Your task to perform on an android device: Clear the shopping cart on ebay.com. Add acer predator to the cart on ebay.com, then select checkout. Image 0: 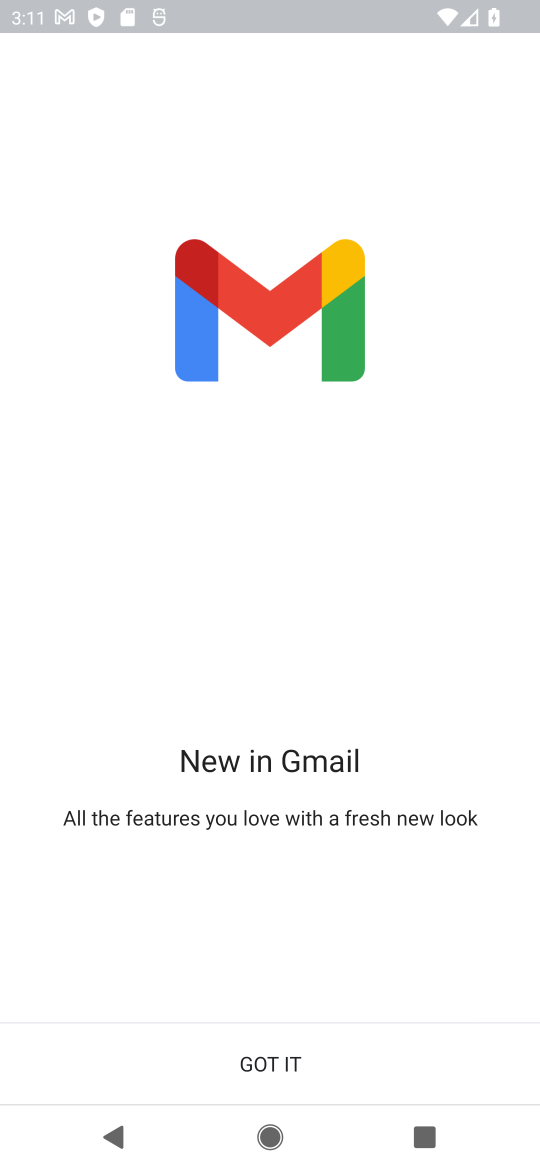
Step 0: press home button
Your task to perform on an android device: Clear the shopping cart on ebay.com. Add acer predator to the cart on ebay.com, then select checkout. Image 1: 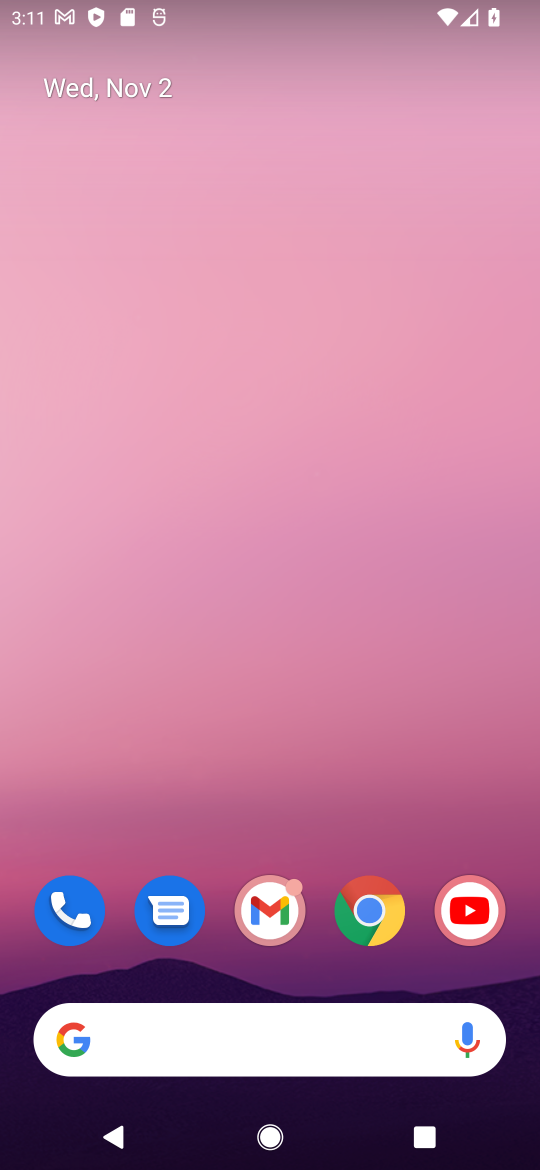
Step 1: click (379, 900)
Your task to perform on an android device: Clear the shopping cart on ebay.com. Add acer predator to the cart on ebay.com, then select checkout. Image 2: 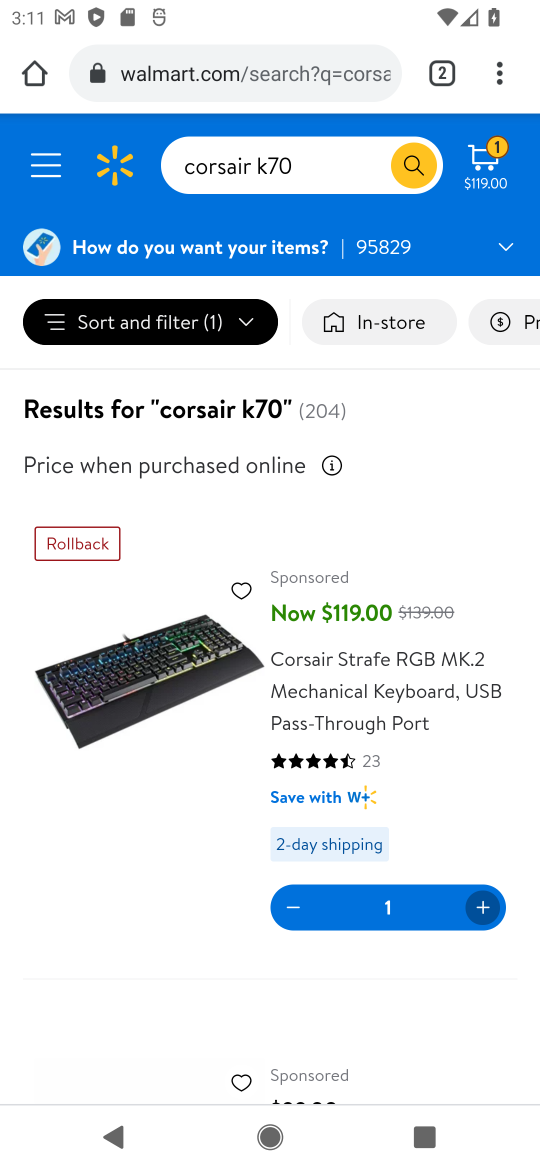
Step 2: click (447, 74)
Your task to perform on an android device: Clear the shopping cart on ebay.com. Add acer predator to the cart on ebay.com, then select checkout. Image 3: 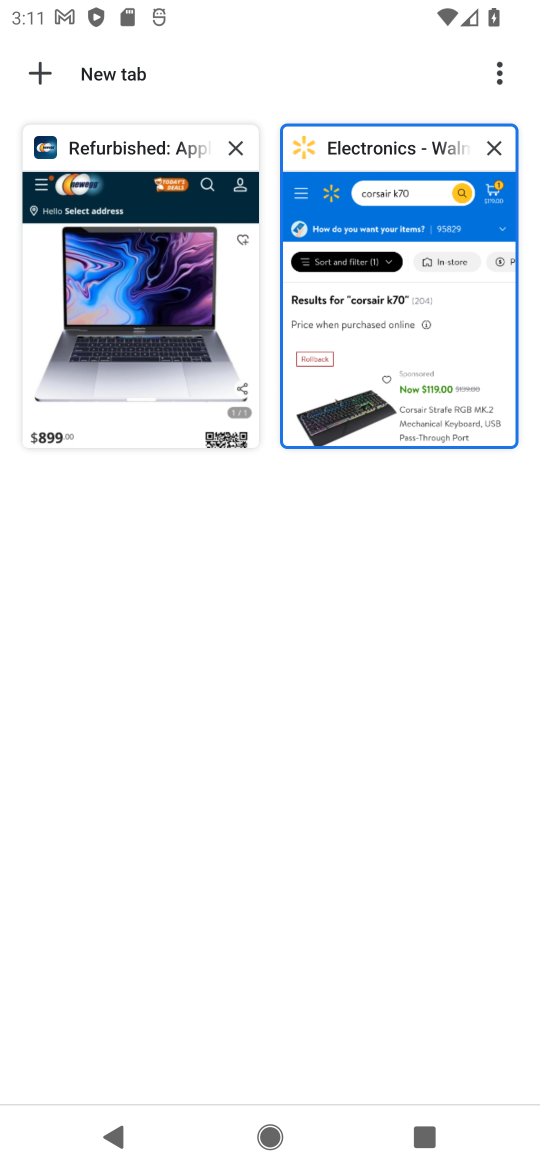
Step 3: click (45, 70)
Your task to perform on an android device: Clear the shopping cart on ebay.com. Add acer predator to the cart on ebay.com, then select checkout. Image 4: 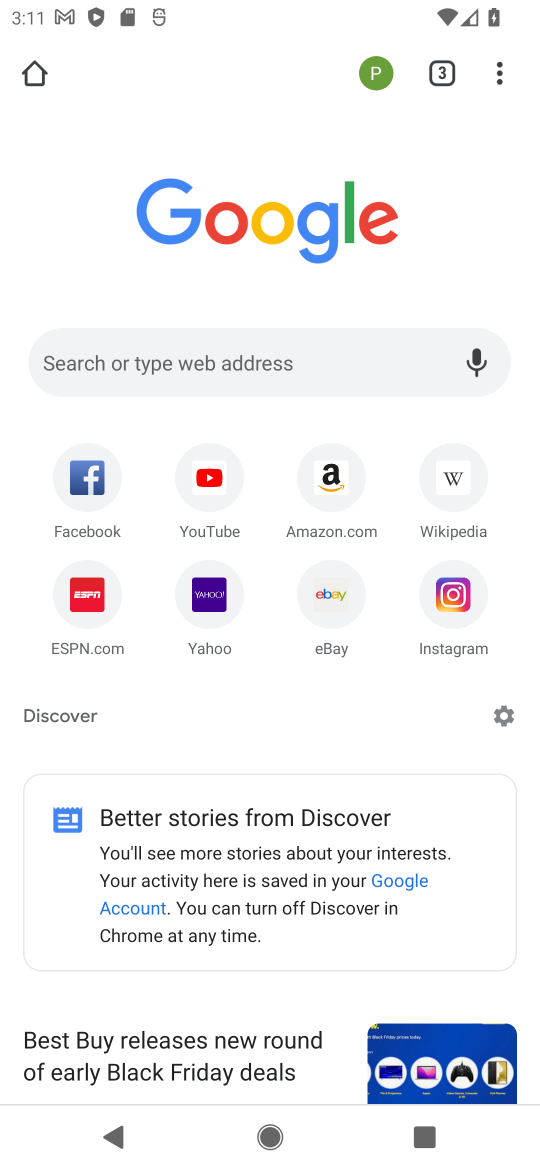
Step 4: click (309, 366)
Your task to perform on an android device: Clear the shopping cart on ebay.com. Add acer predator to the cart on ebay.com, then select checkout. Image 5: 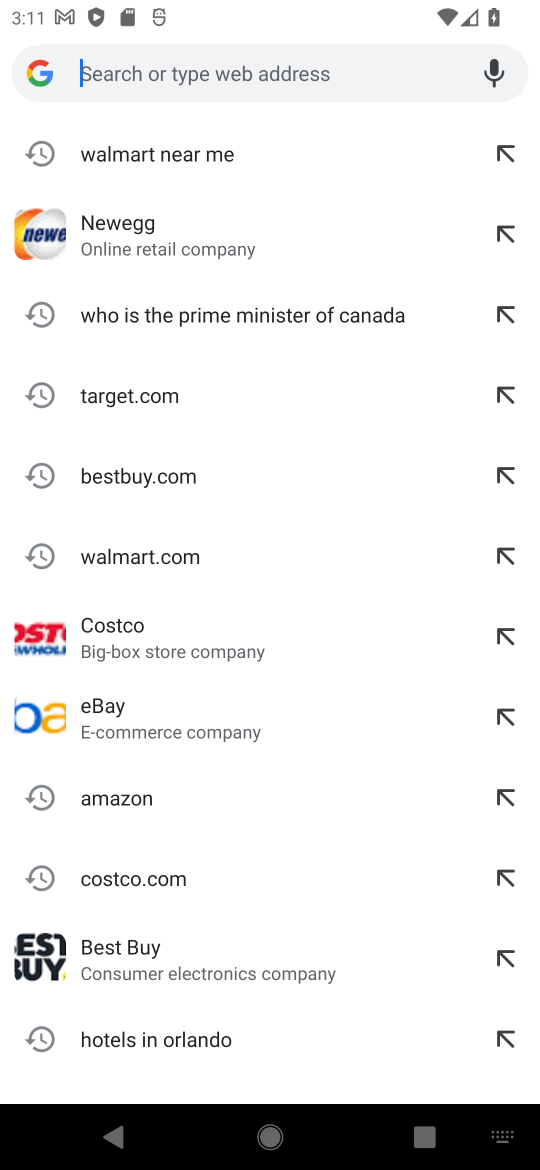
Step 5: click (68, 716)
Your task to perform on an android device: Clear the shopping cart on ebay.com. Add acer predator to the cart on ebay.com, then select checkout. Image 6: 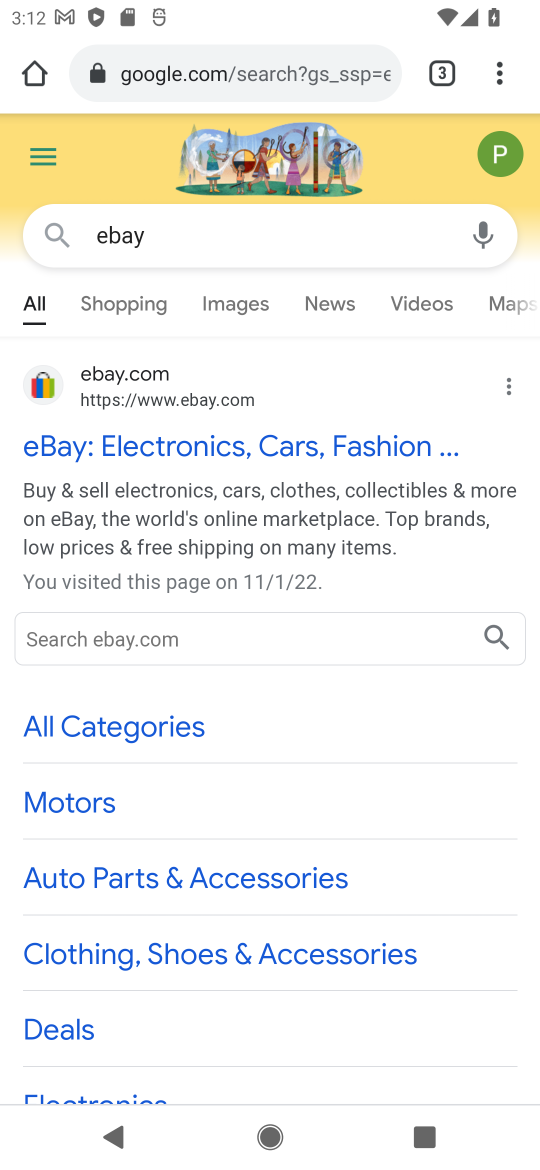
Step 6: click (132, 635)
Your task to perform on an android device: Clear the shopping cart on ebay.com. Add acer predator to the cart on ebay.com, then select checkout. Image 7: 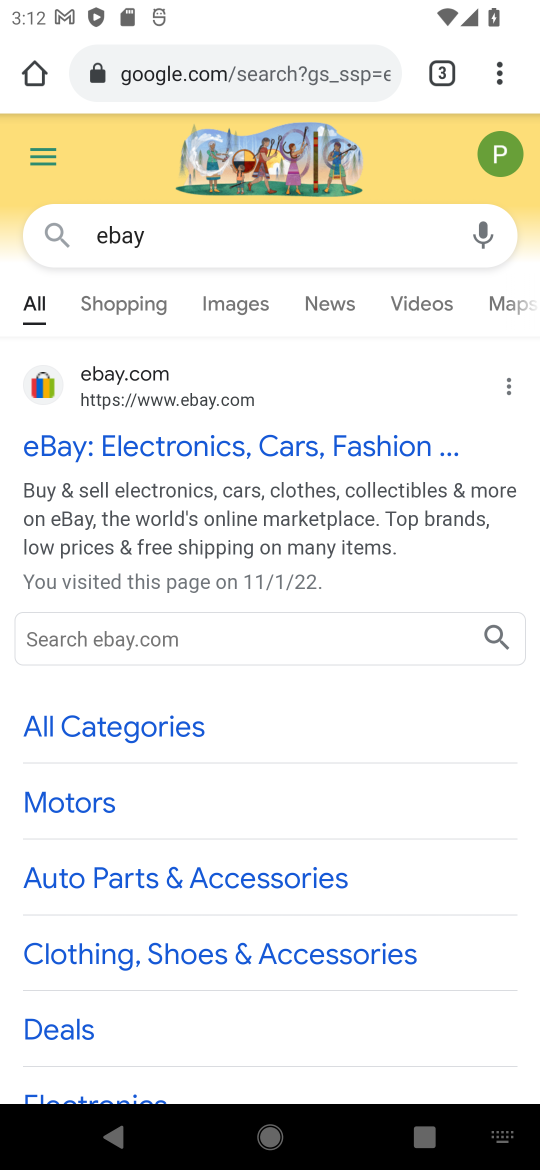
Step 7: type "acer predator"
Your task to perform on an android device: Clear the shopping cart on ebay.com. Add acer predator to the cart on ebay.com, then select checkout. Image 8: 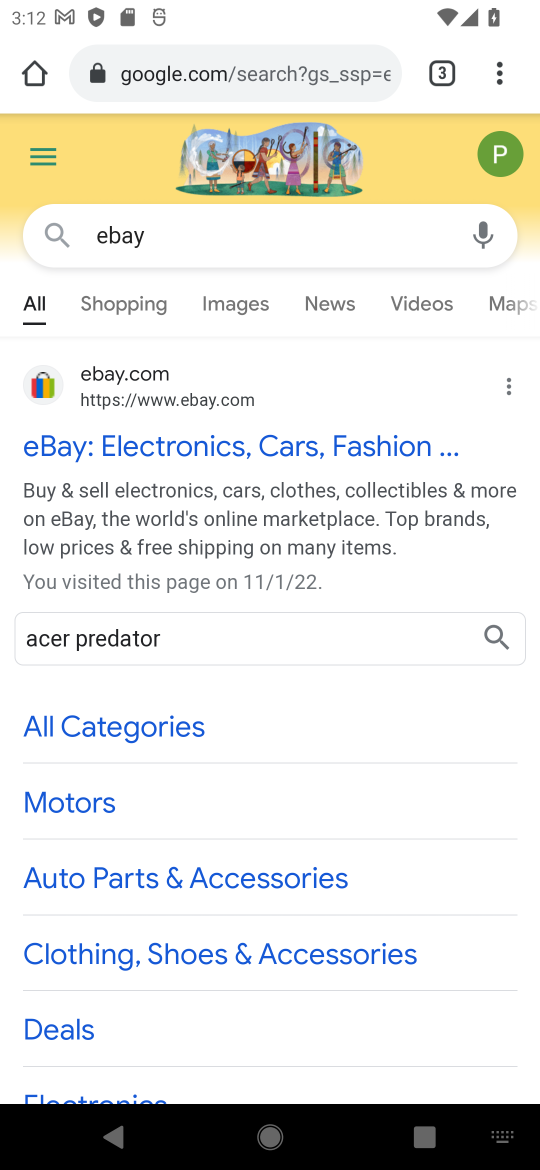
Step 8: click (498, 630)
Your task to perform on an android device: Clear the shopping cart on ebay.com. Add acer predator to the cart on ebay.com, then select checkout. Image 9: 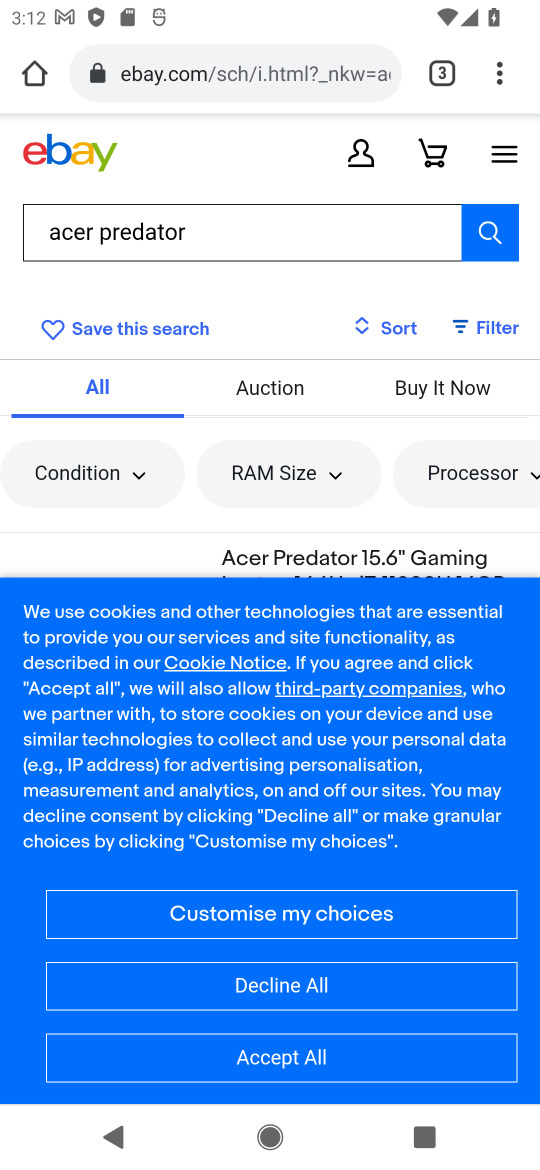
Step 9: click (238, 978)
Your task to perform on an android device: Clear the shopping cart on ebay.com. Add acer predator to the cart on ebay.com, then select checkout. Image 10: 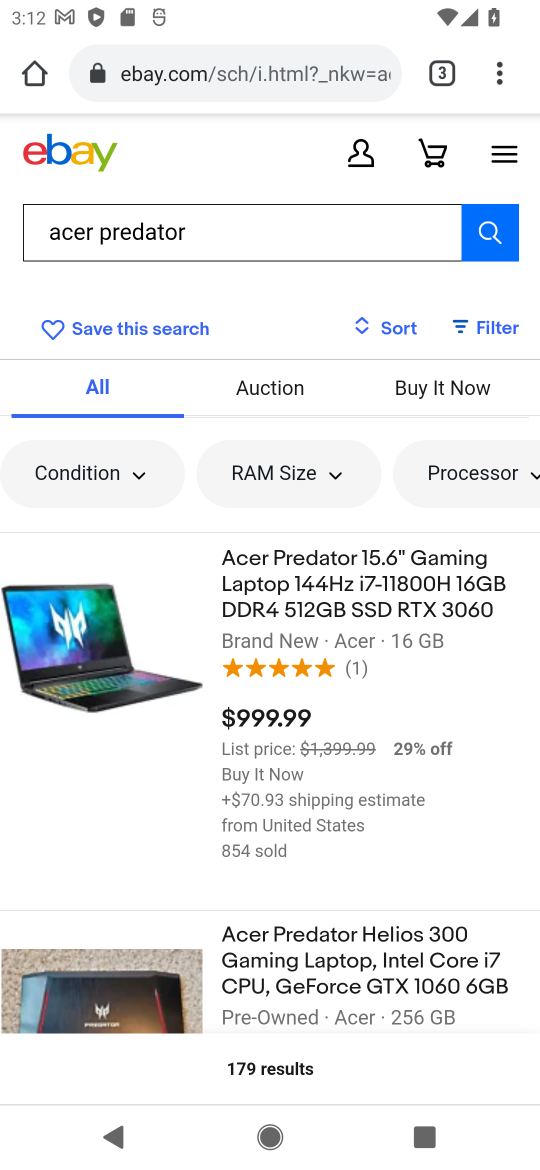
Step 10: click (357, 592)
Your task to perform on an android device: Clear the shopping cart on ebay.com. Add acer predator to the cart on ebay.com, then select checkout. Image 11: 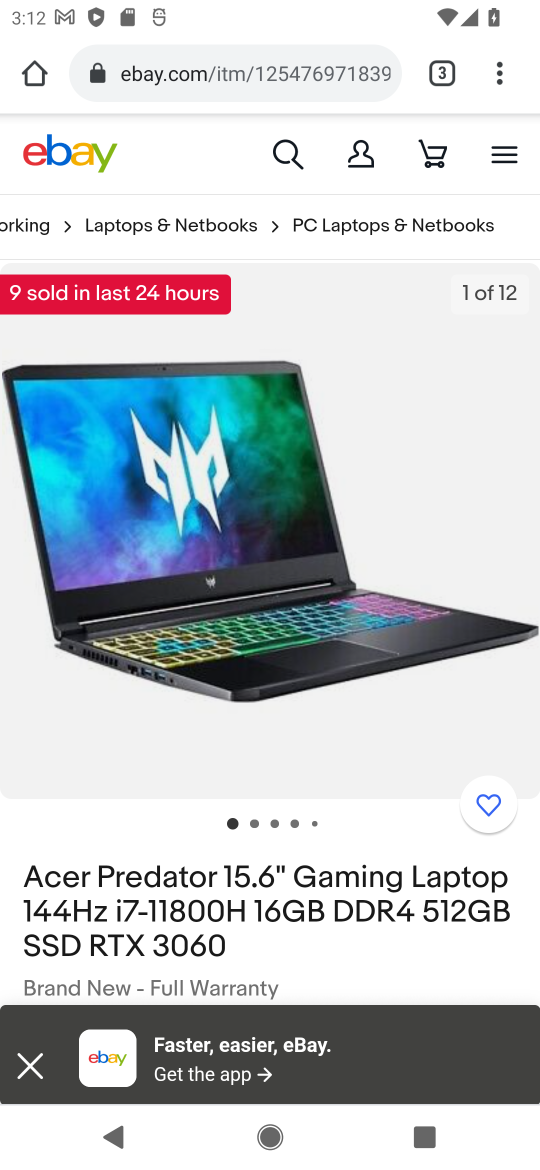
Step 11: click (45, 1083)
Your task to perform on an android device: Clear the shopping cart on ebay.com. Add acer predator to the cart on ebay.com, then select checkout. Image 12: 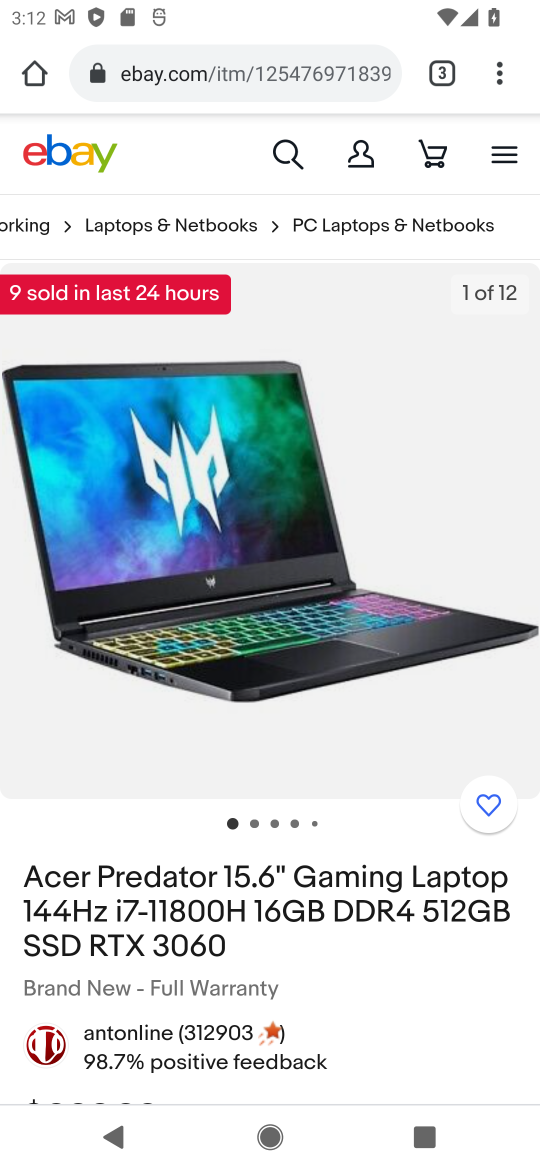
Step 12: drag from (278, 1020) to (325, 172)
Your task to perform on an android device: Clear the shopping cart on ebay.com. Add acer predator to the cart on ebay.com, then select checkout. Image 13: 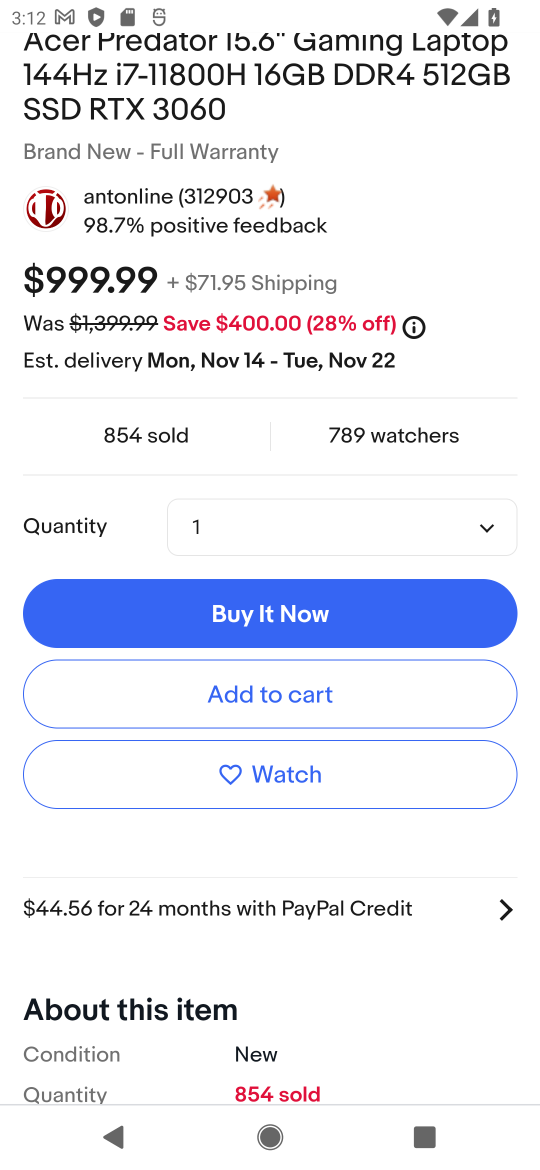
Step 13: click (327, 694)
Your task to perform on an android device: Clear the shopping cart on ebay.com. Add acer predator to the cart on ebay.com, then select checkout. Image 14: 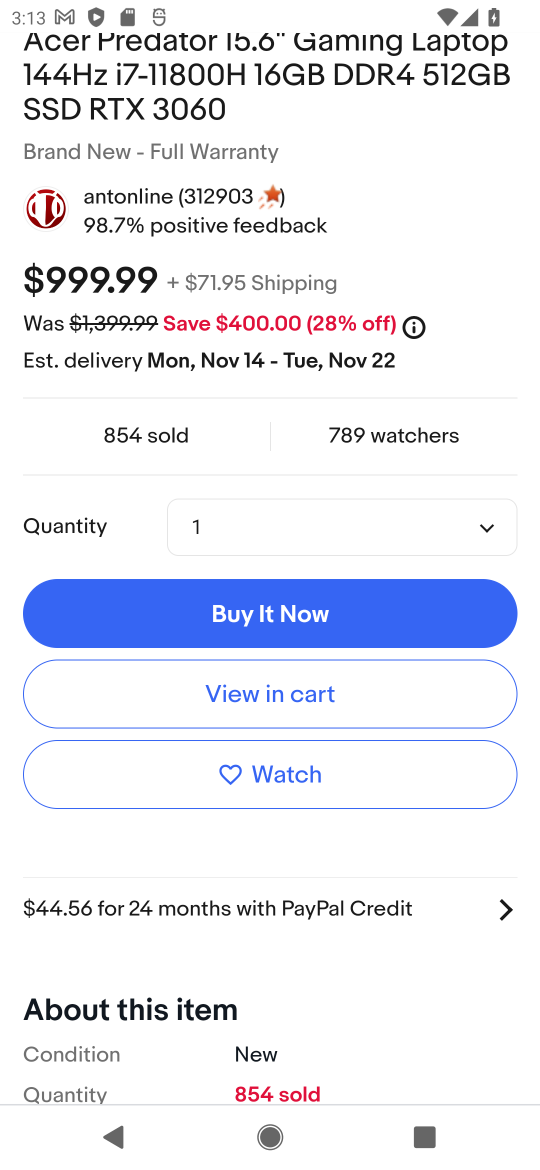
Step 14: click (282, 695)
Your task to perform on an android device: Clear the shopping cart on ebay.com. Add acer predator to the cart on ebay.com, then select checkout. Image 15: 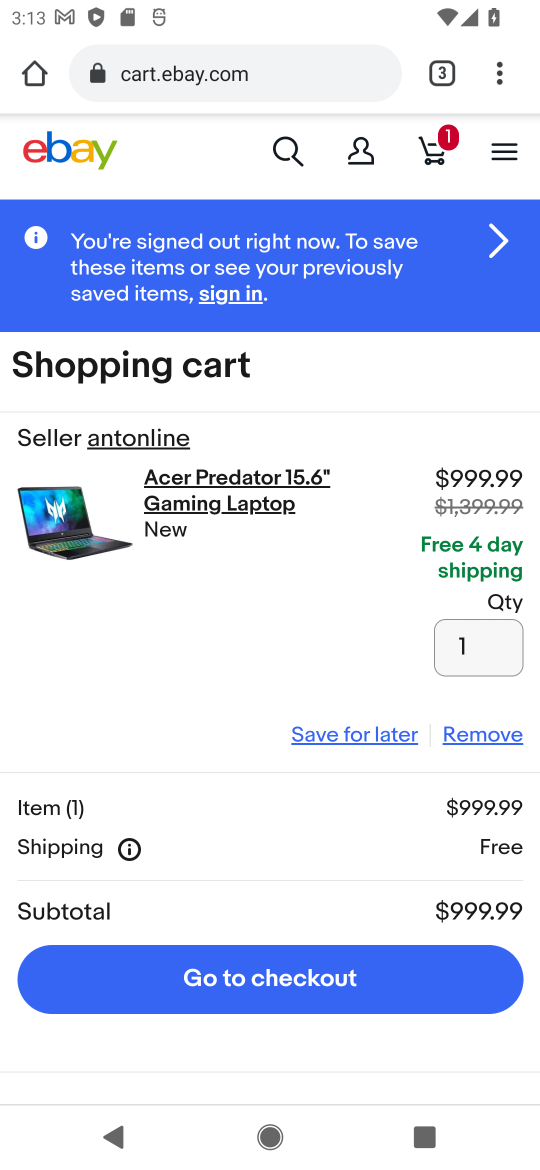
Step 15: click (265, 967)
Your task to perform on an android device: Clear the shopping cart on ebay.com. Add acer predator to the cart on ebay.com, then select checkout. Image 16: 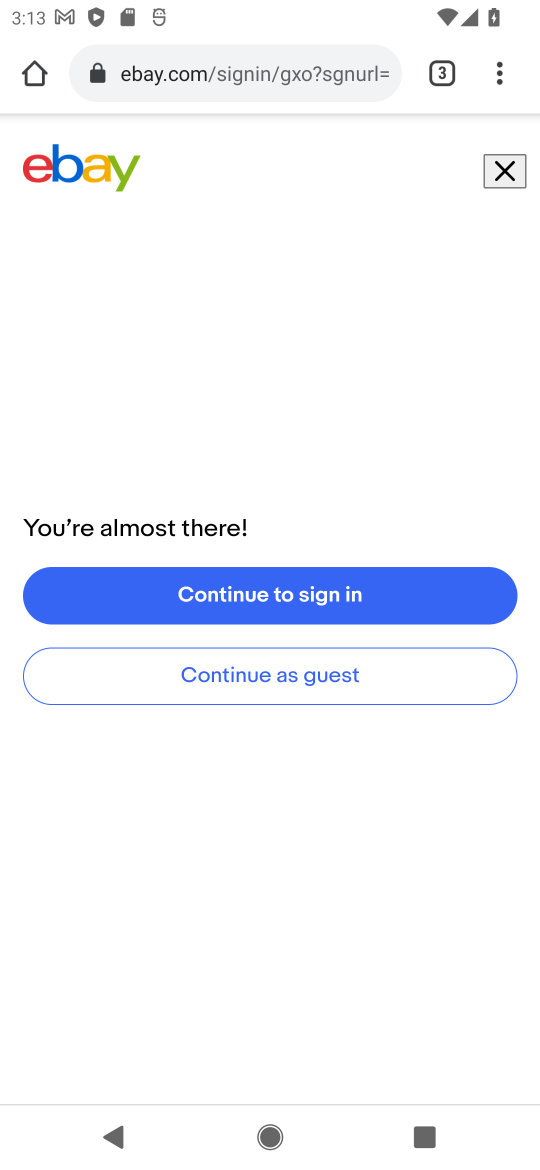
Step 16: task complete